Your task to perform on an android device: toggle location history Image 0: 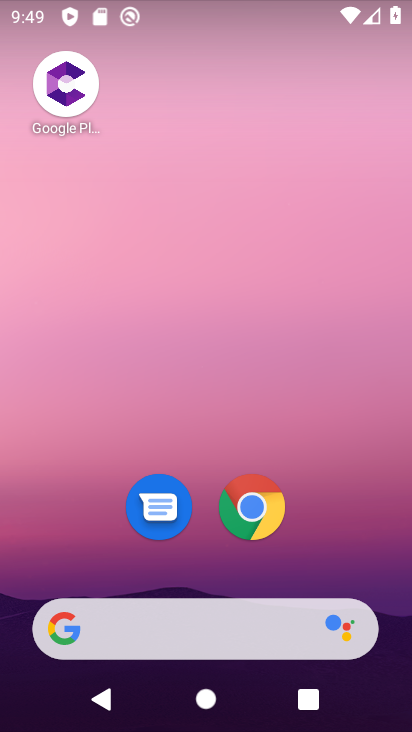
Step 0: click (370, 286)
Your task to perform on an android device: toggle location history Image 1: 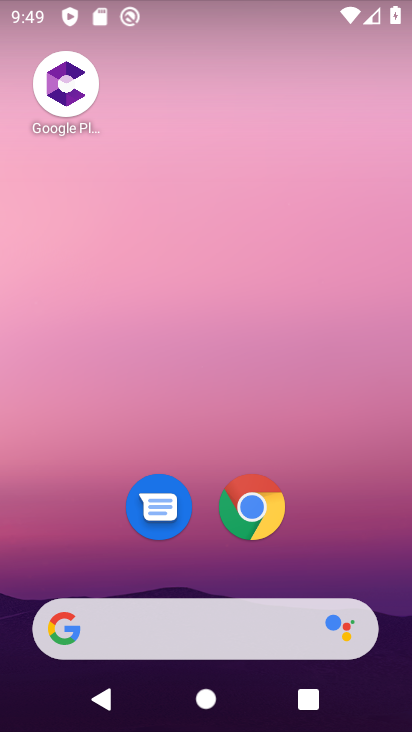
Step 1: drag from (385, 666) to (357, 221)
Your task to perform on an android device: toggle location history Image 2: 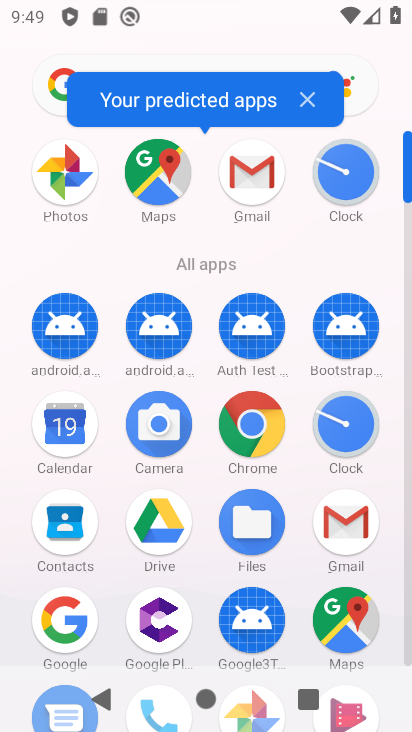
Step 2: drag from (407, 135) to (407, 73)
Your task to perform on an android device: toggle location history Image 3: 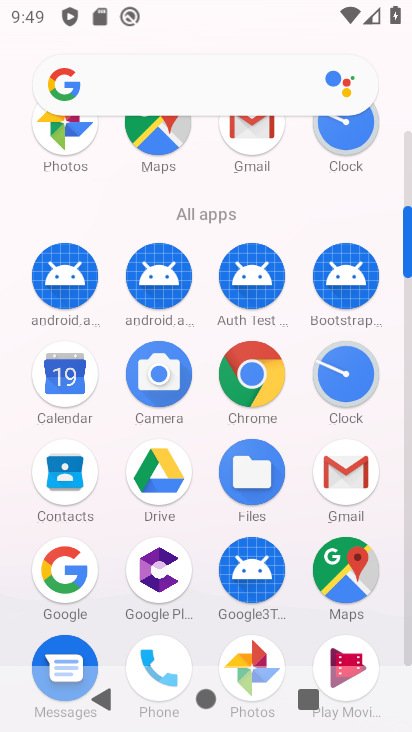
Step 3: drag from (411, 204) to (410, 158)
Your task to perform on an android device: toggle location history Image 4: 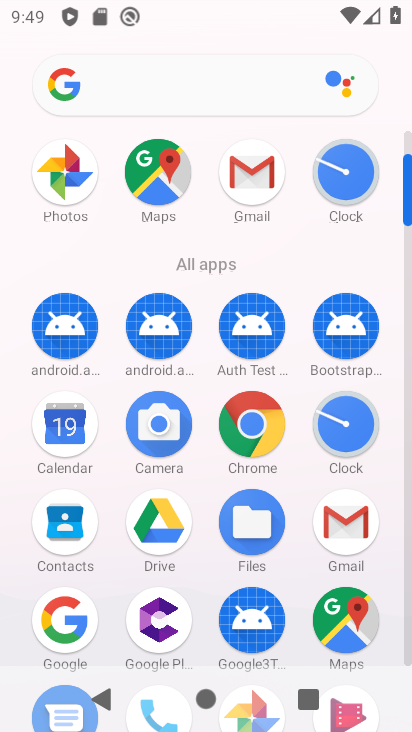
Step 4: click (408, 177)
Your task to perform on an android device: toggle location history Image 5: 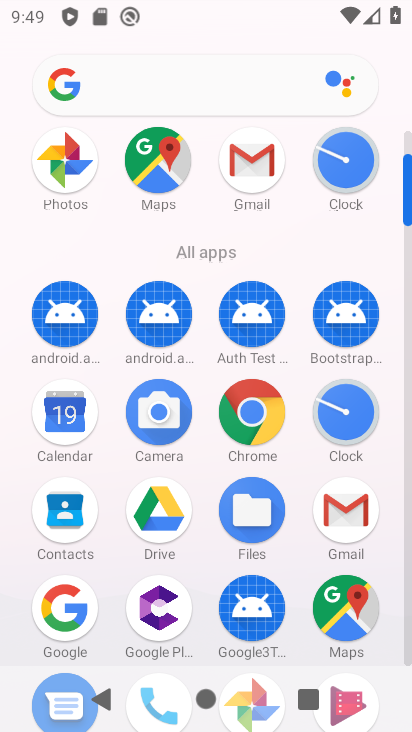
Step 5: drag from (405, 165) to (411, 128)
Your task to perform on an android device: toggle location history Image 6: 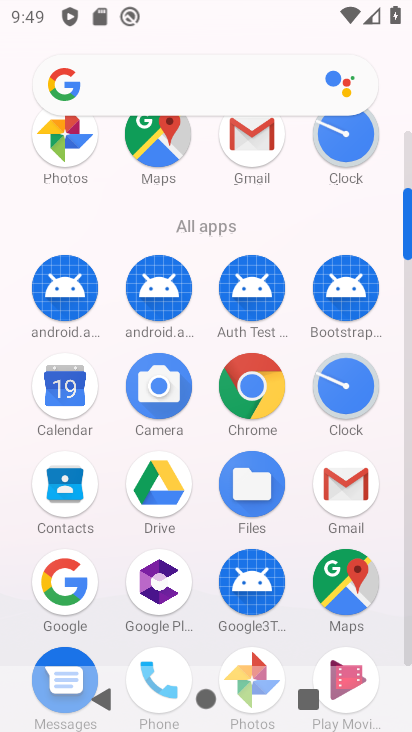
Step 6: drag from (411, 196) to (411, 153)
Your task to perform on an android device: toggle location history Image 7: 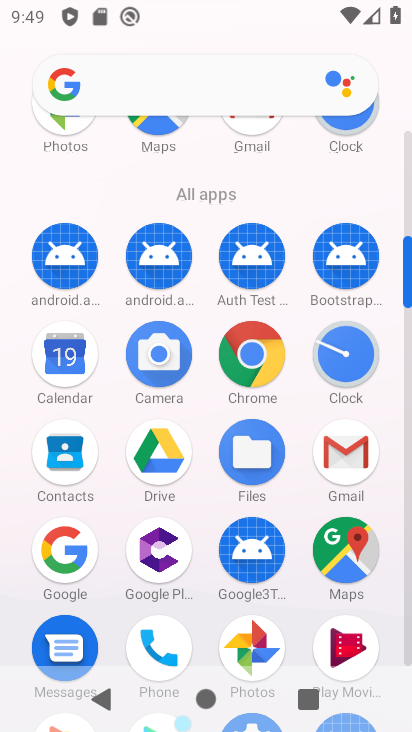
Step 7: drag from (404, 242) to (409, 165)
Your task to perform on an android device: toggle location history Image 8: 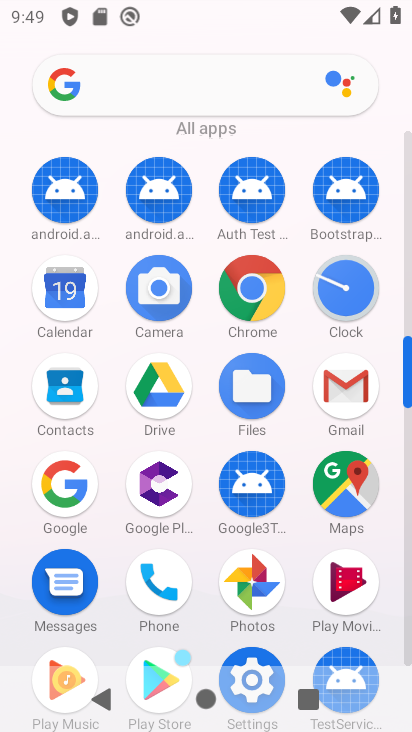
Step 8: drag from (404, 280) to (408, 235)
Your task to perform on an android device: toggle location history Image 9: 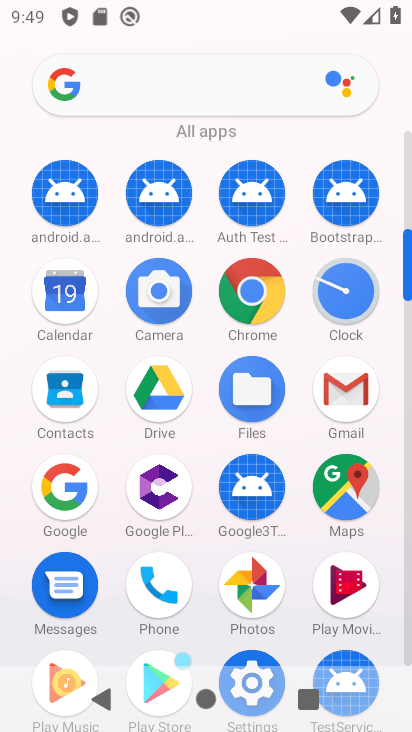
Step 9: click (249, 655)
Your task to perform on an android device: toggle location history Image 10: 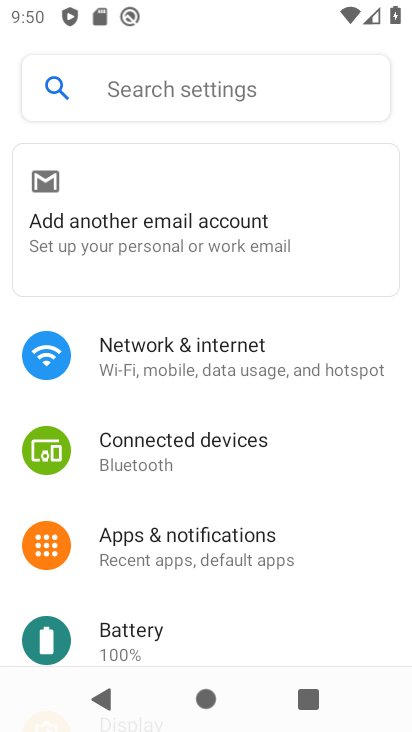
Step 10: drag from (268, 631) to (258, 410)
Your task to perform on an android device: toggle location history Image 11: 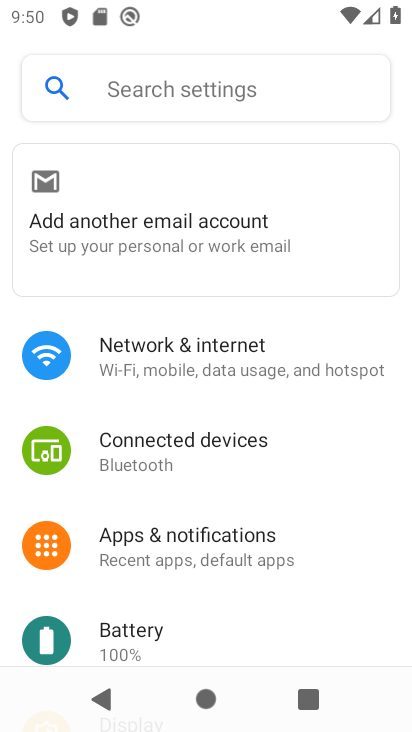
Step 11: drag from (318, 611) to (319, 411)
Your task to perform on an android device: toggle location history Image 12: 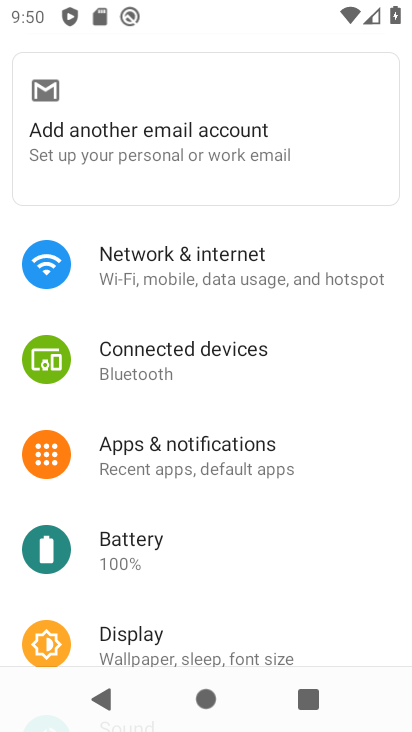
Step 12: drag from (291, 612) to (317, 373)
Your task to perform on an android device: toggle location history Image 13: 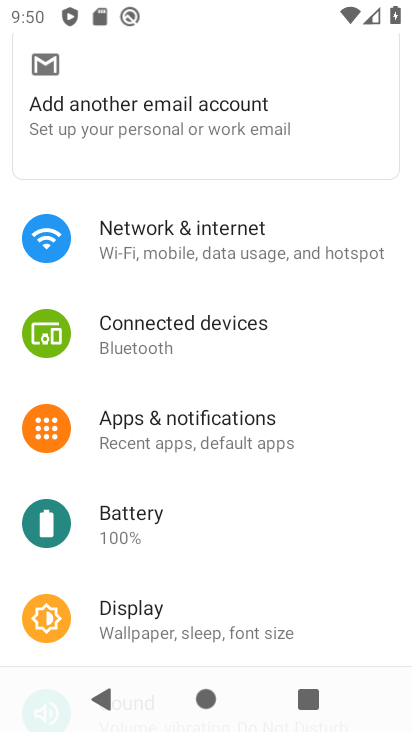
Step 13: drag from (320, 599) to (310, 398)
Your task to perform on an android device: toggle location history Image 14: 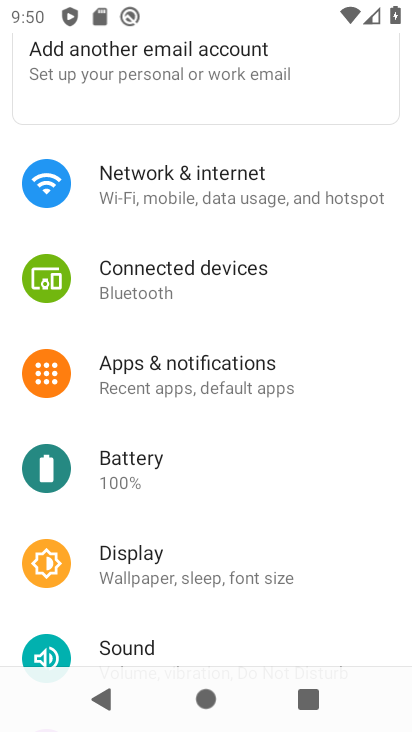
Step 14: drag from (346, 581) to (348, 365)
Your task to perform on an android device: toggle location history Image 15: 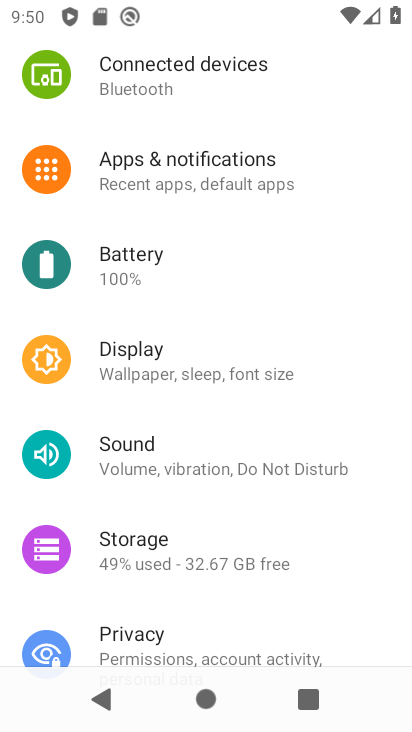
Step 15: drag from (344, 597) to (341, 391)
Your task to perform on an android device: toggle location history Image 16: 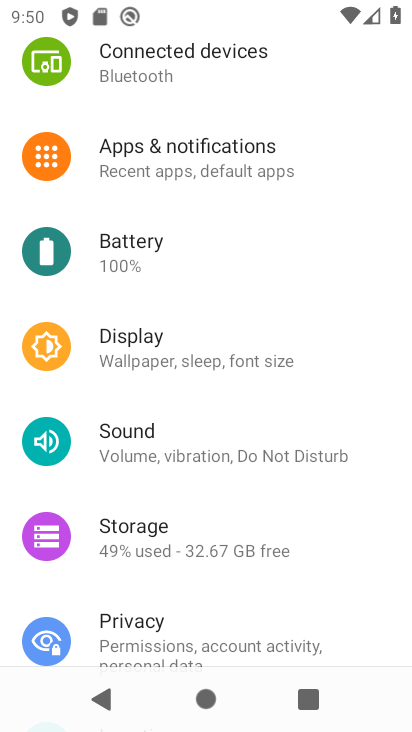
Step 16: drag from (362, 631) to (351, 403)
Your task to perform on an android device: toggle location history Image 17: 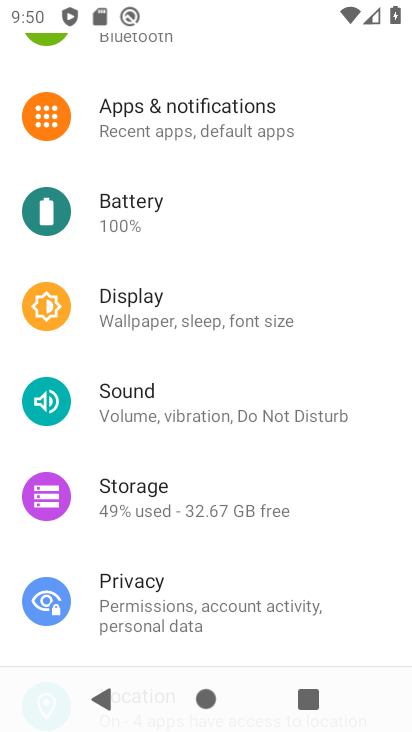
Step 17: drag from (356, 629) to (366, 338)
Your task to perform on an android device: toggle location history Image 18: 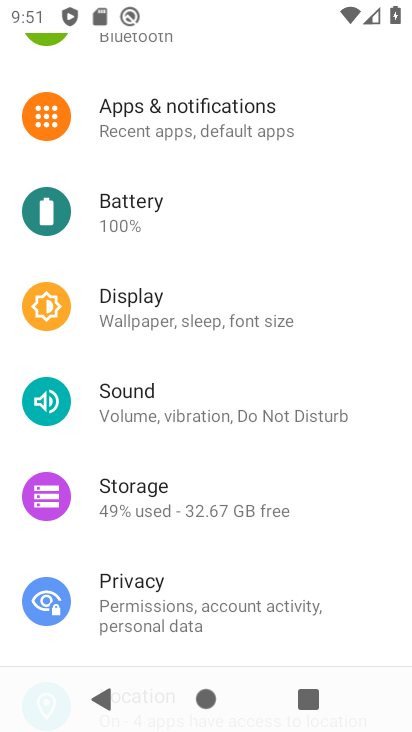
Step 18: drag from (332, 551) to (331, 335)
Your task to perform on an android device: toggle location history Image 19: 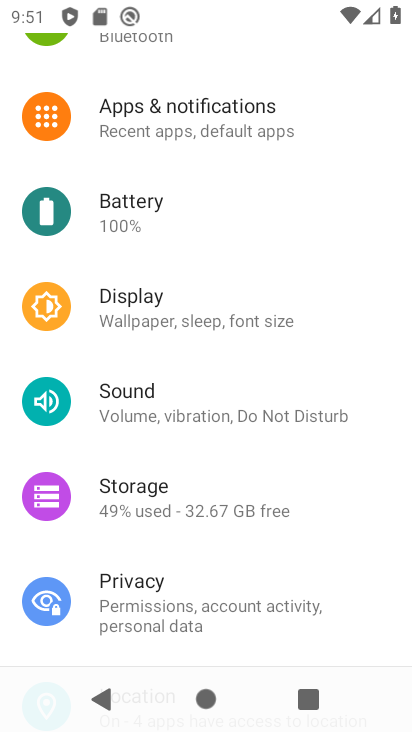
Step 19: drag from (339, 639) to (342, 219)
Your task to perform on an android device: toggle location history Image 20: 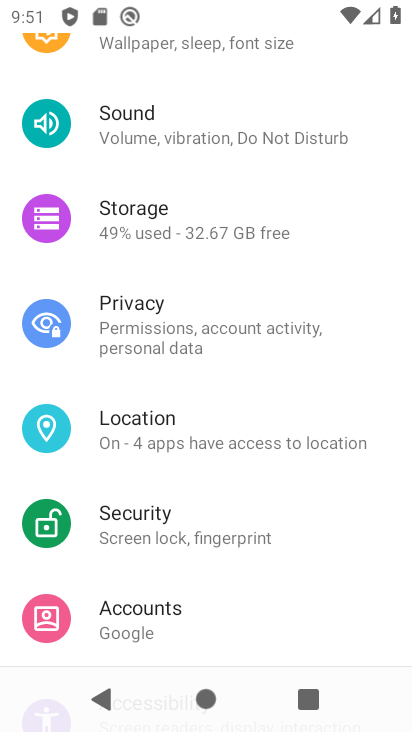
Step 20: drag from (302, 635) to (274, 359)
Your task to perform on an android device: toggle location history Image 21: 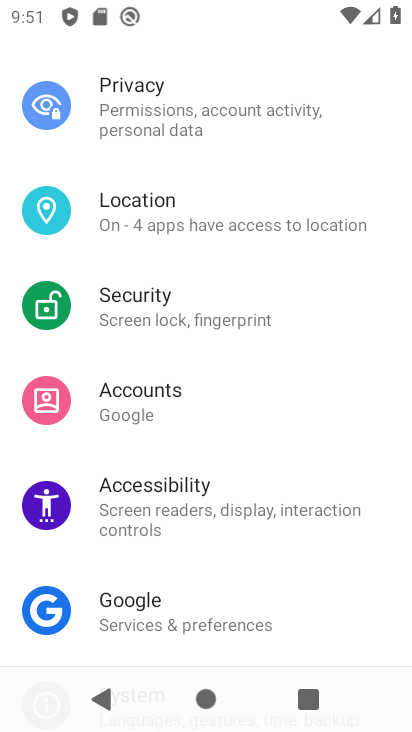
Step 21: drag from (313, 474) to (324, 276)
Your task to perform on an android device: toggle location history Image 22: 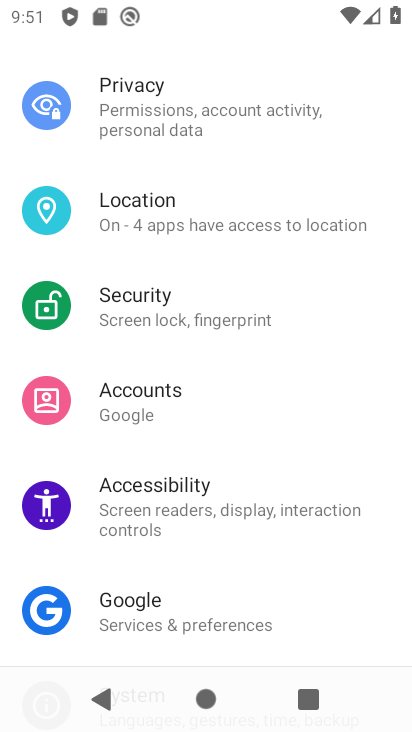
Step 22: drag from (312, 528) to (285, 259)
Your task to perform on an android device: toggle location history Image 23: 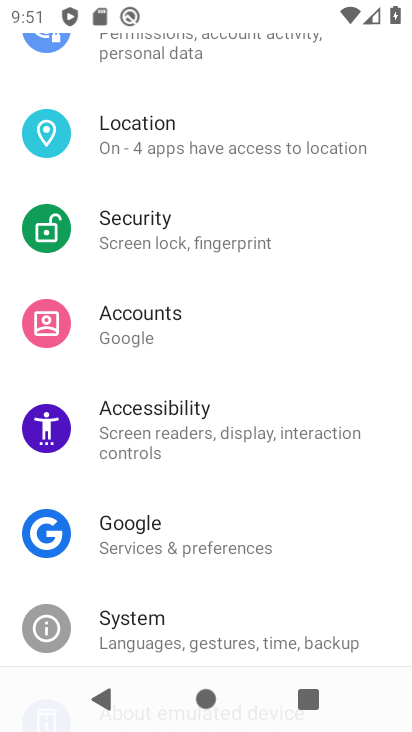
Step 23: click (145, 149)
Your task to perform on an android device: toggle location history Image 24: 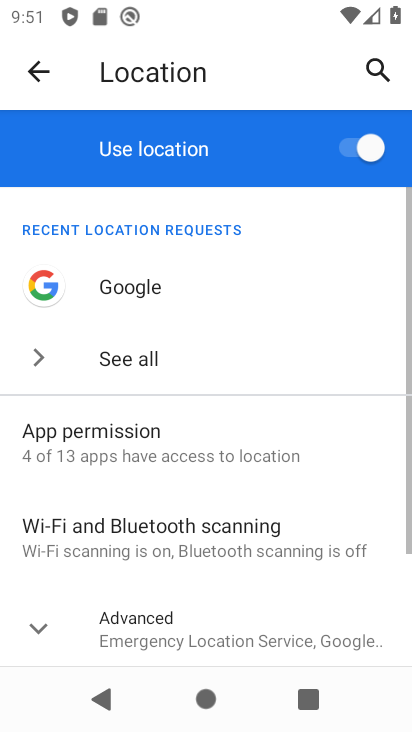
Step 24: drag from (281, 605) to (269, 305)
Your task to perform on an android device: toggle location history Image 25: 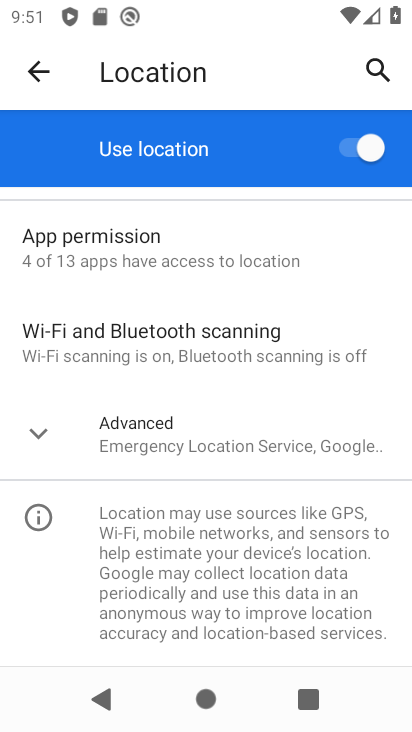
Step 25: click (44, 435)
Your task to perform on an android device: toggle location history Image 26: 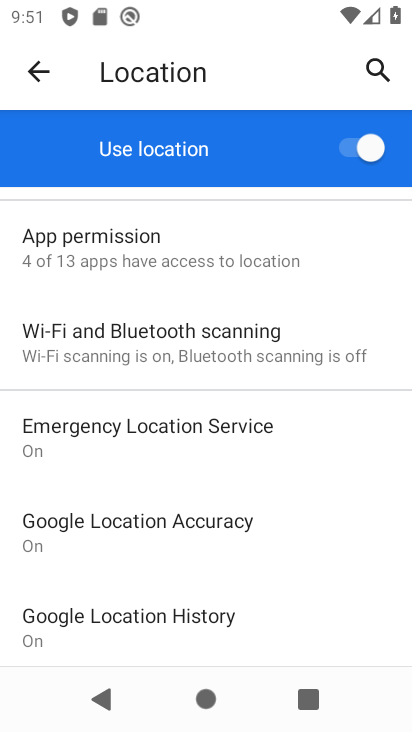
Step 26: drag from (327, 613) to (328, 372)
Your task to perform on an android device: toggle location history Image 27: 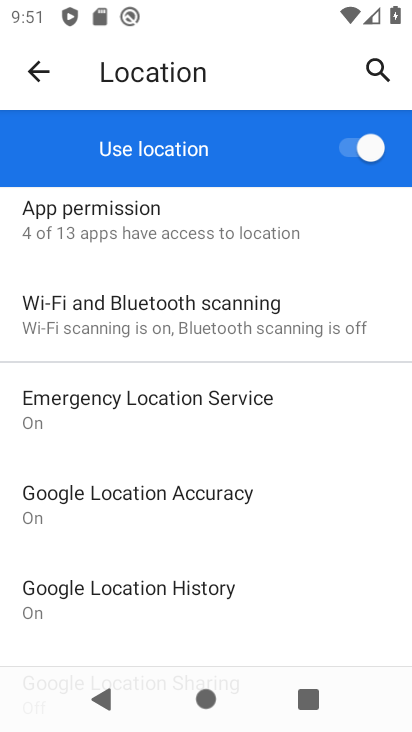
Step 27: click (121, 587)
Your task to perform on an android device: toggle location history Image 28: 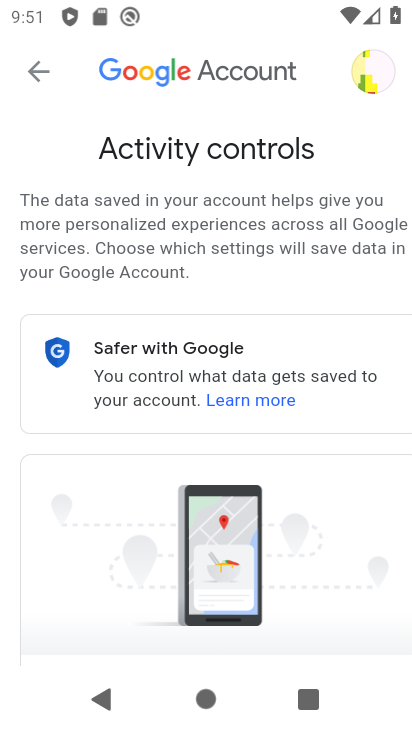
Step 28: click (371, 175)
Your task to perform on an android device: toggle location history Image 29: 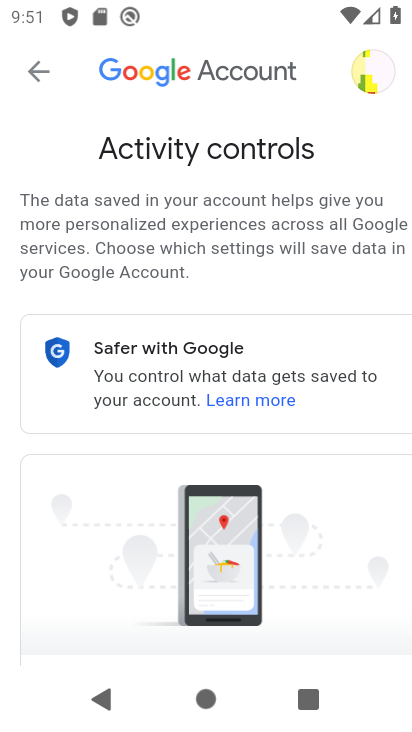
Step 29: drag from (313, 625) to (339, 217)
Your task to perform on an android device: toggle location history Image 30: 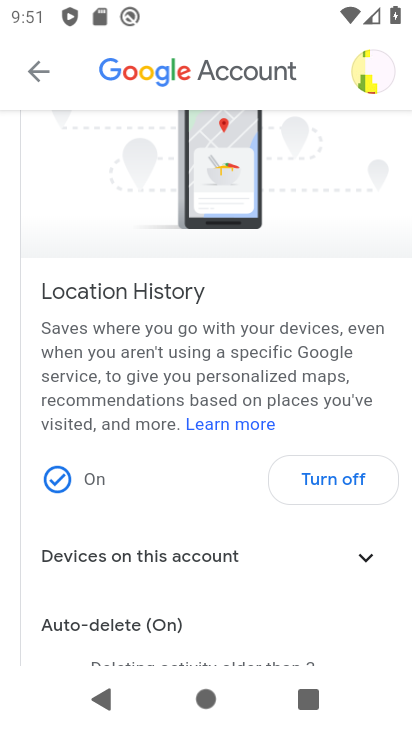
Step 30: drag from (259, 597) to (293, 341)
Your task to perform on an android device: toggle location history Image 31: 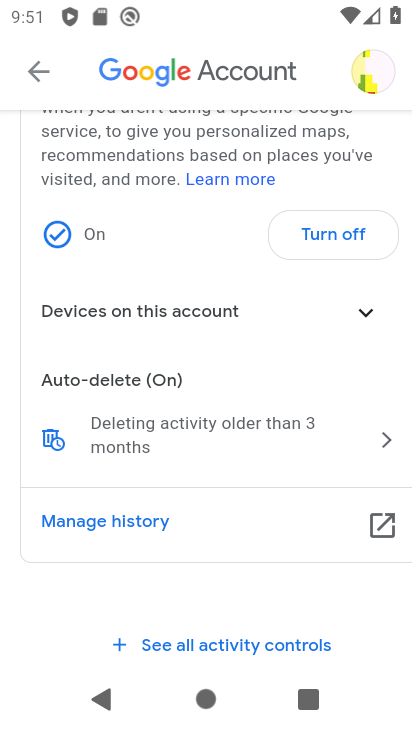
Step 31: click (332, 236)
Your task to perform on an android device: toggle location history Image 32: 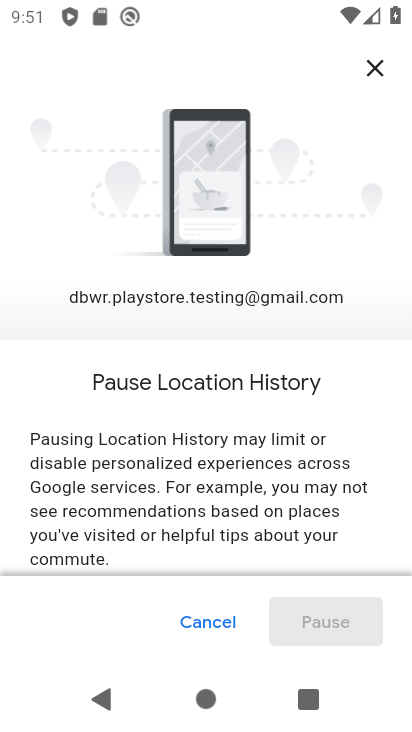
Step 32: task complete